Your task to perform on an android device: check google app version Image 0: 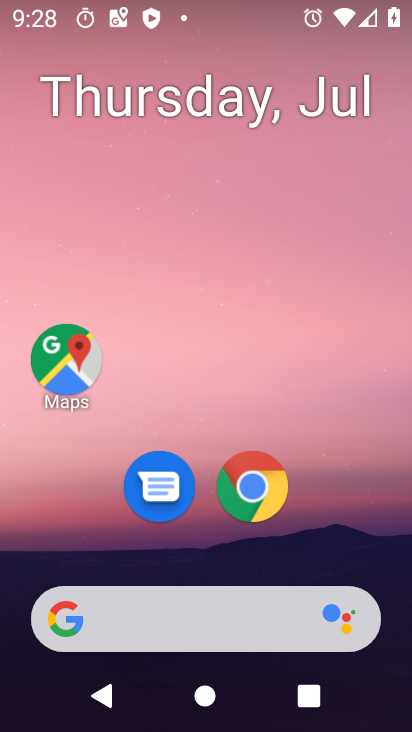
Step 0: drag from (197, 657) to (188, 271)
Your task to perform on an android device: check google app version Image 1: 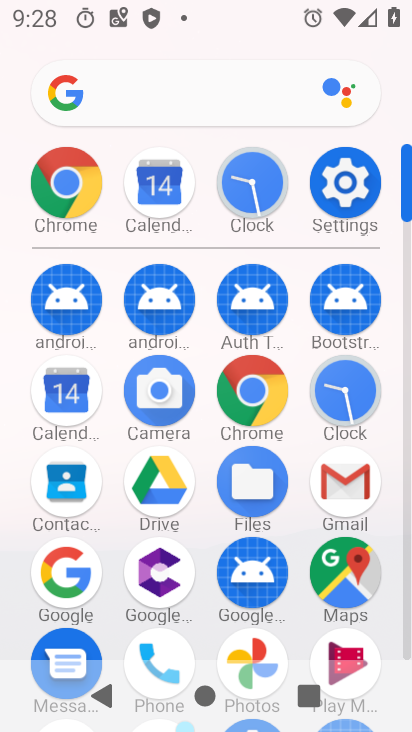
Step 1: click (81, 588)
Your task to perform on an android device: check google app version Image 2: 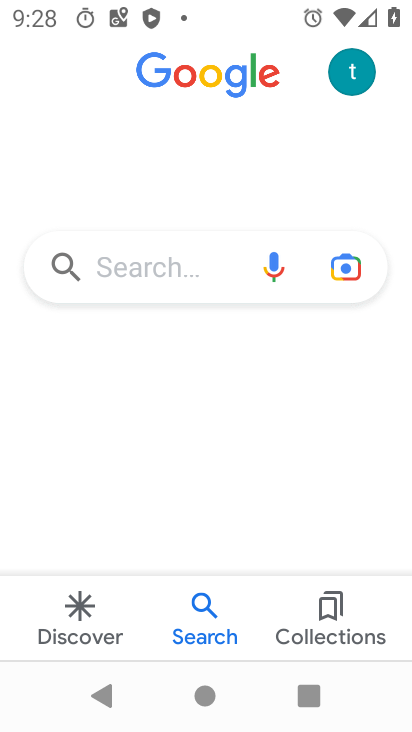
Step 2: click (351, 73)
Your task to perform on an android device: check google app version Image 3: 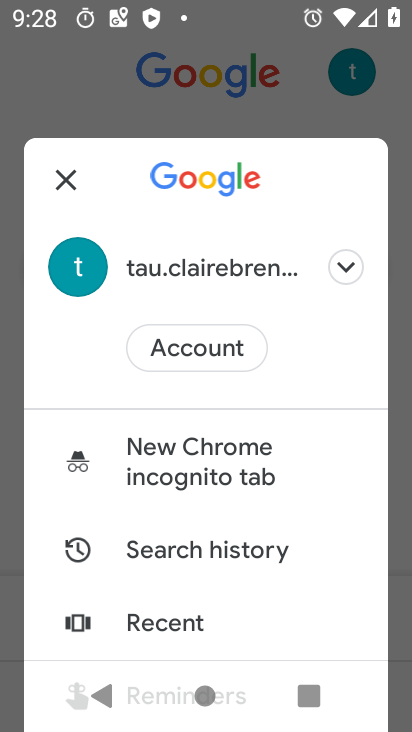
Step 3: drag from (168, 552) to (169, 5)
Your task to perform on an android device: check google app version Image 4: 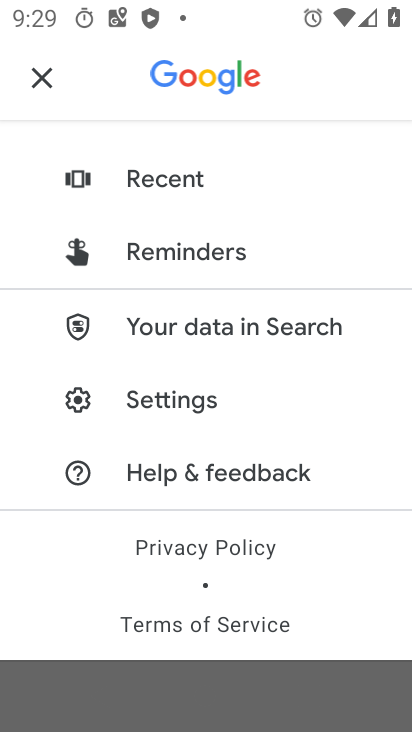
Step 4: click (140, 390)
Your task to perform on an android device: check google app version Image 5: 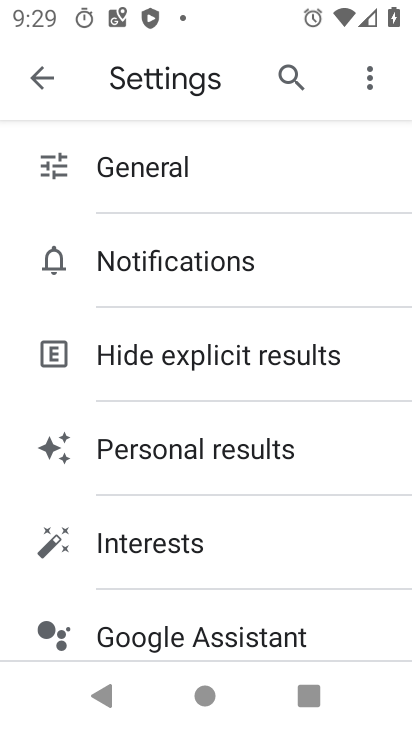
Step 5: drag from (196, 579) to (199, 114)
Your task to perform on an android device: check google app version Image 6: 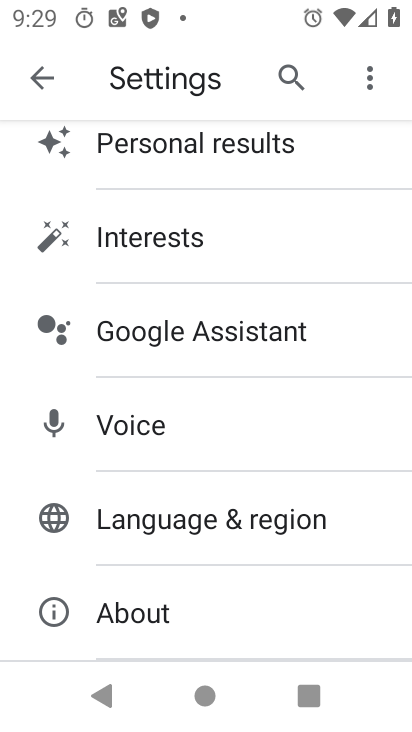
Step 6: click (171, 621)
Your task to perform on an android device: check google app version Image 7: 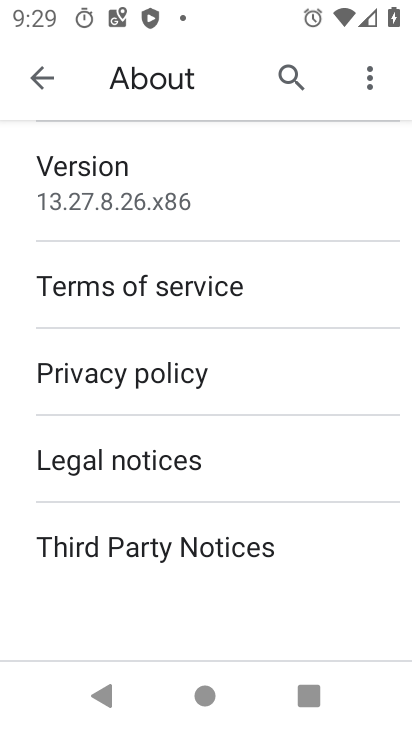
Step 7: task complete